Your task to perform on an android device: manage bookmarks in the chrome app Image 0: 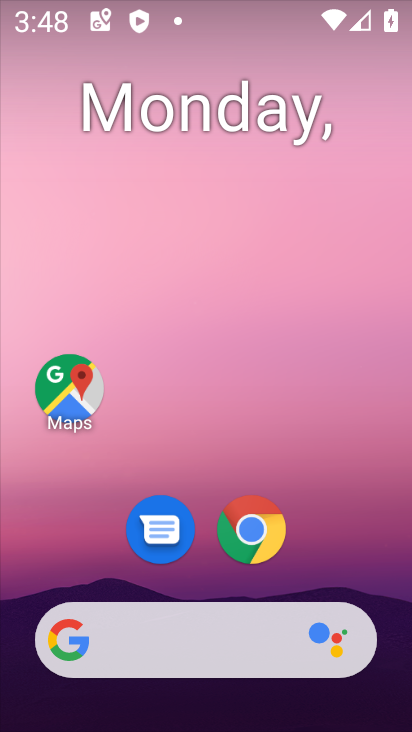
Step 0: click (252, 524)
Your task to perform on an android device: manage bookmarks in the chrome app Image 1: 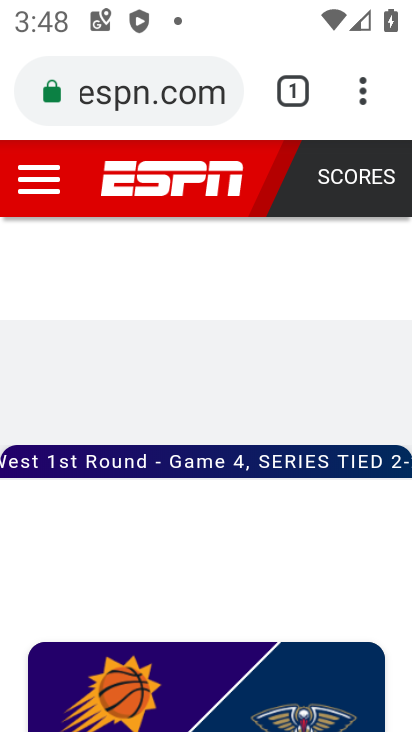
Step 1: task complete